Your task to perform on an android device: Go to Yahoo.com Image 0: 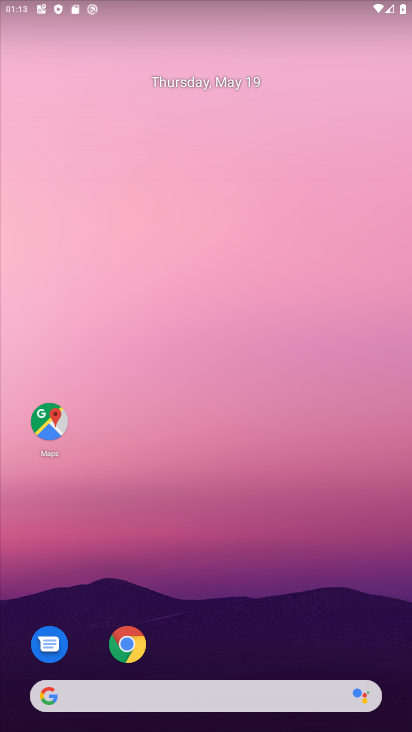
Step 0: drag from (261, 650) to (372, 216)
Your task to perform on an android device: Go to Yahoo.com Image 1: 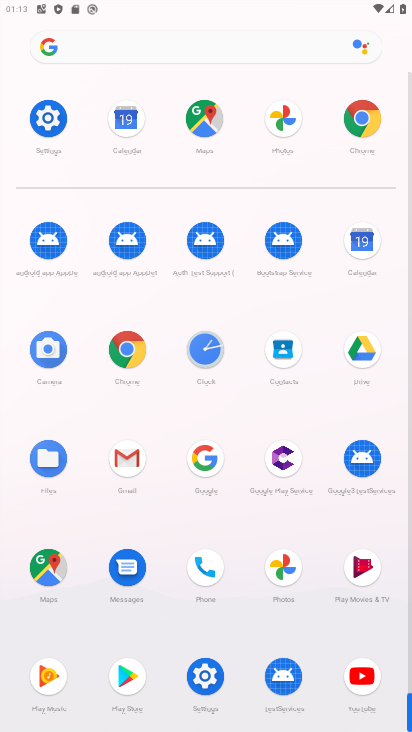
Step 1: click (120, 342)
Your task to perform on an android device: Go to Yahoo.com Image 2: 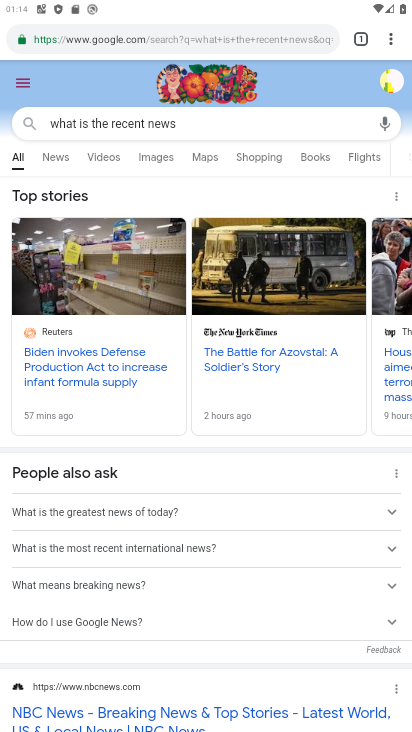
Step 2: click (199, 39)
Your task to perform on an android device: Go to Yahoo.com Image 3: 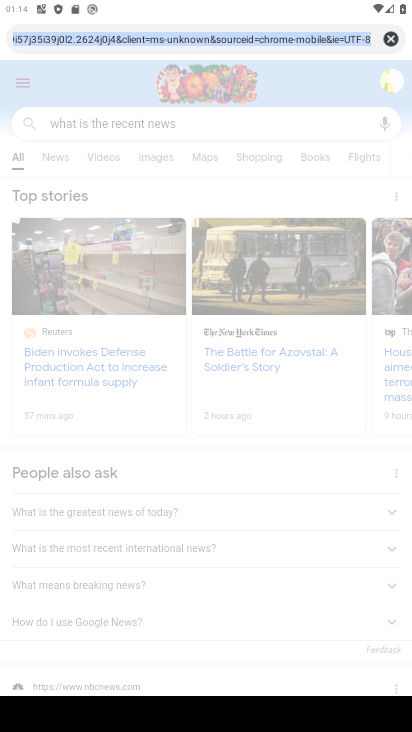
Step 3: click (392, 42)
Your task to perform on an android device: Go to Yahoo.com Image 4: 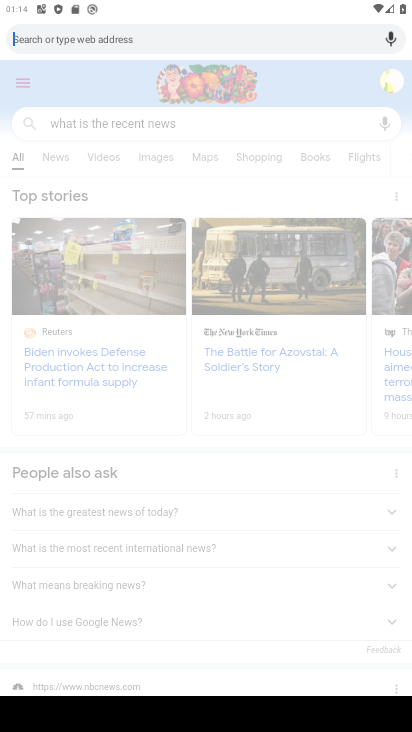
Step 4: type "yahoo.com"
Your task to perform on an android device: Go to Yahoo.com Image 5: 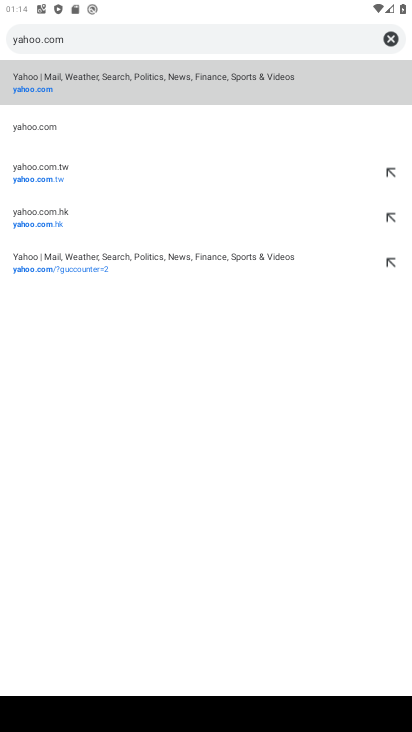
Step 5: click (35, 133)
Your task to perform on an android device: Go to Yahoo.com Image 6: 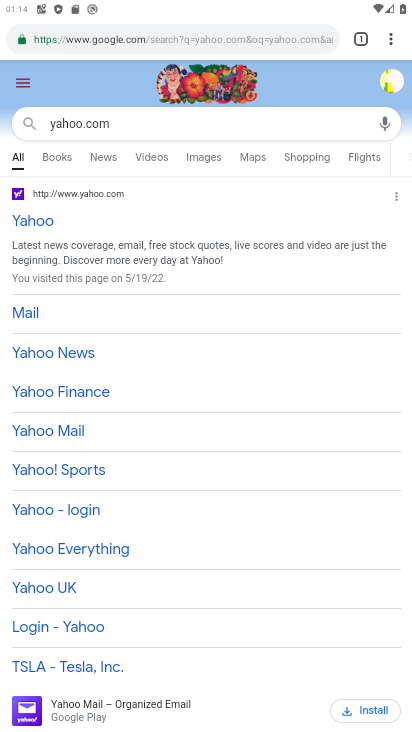
Step 6: click (40, 220)
Your task to perform on an android device: Go to Yahoo.com Image 7: 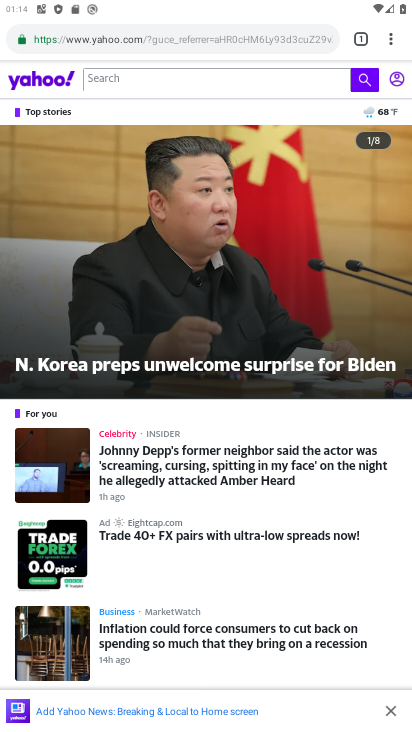
Step 7: task complete